Your task to perform on an android device: add a label to a message in the gmail app Image 0: 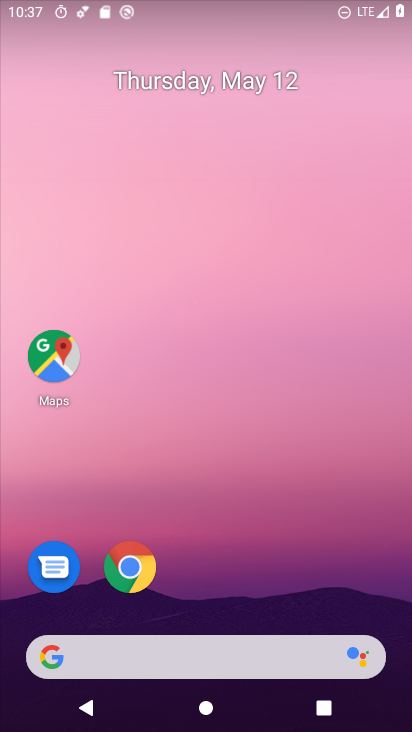
Step 0: drag from (276, 502) to (299, 135)
Your task to perform on an android device: add a label to a message in the gmail app Image 1: 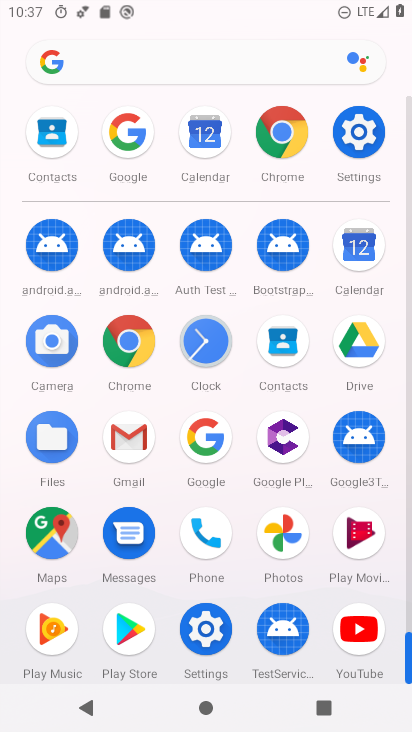
Step 1: click (108, 463)
Your task to perform on an android device: add a label to a message in the gmail app Image 2: 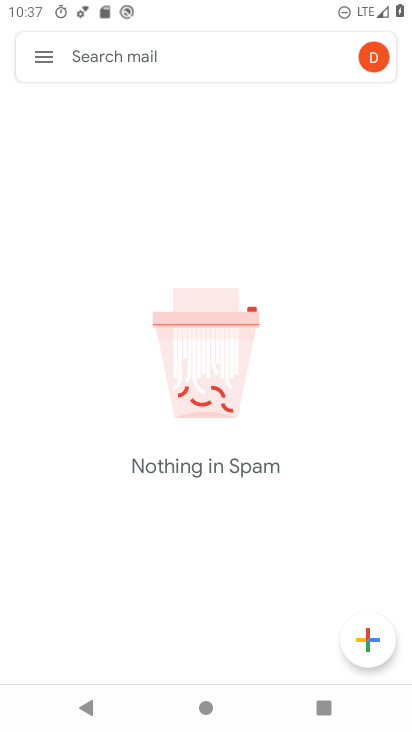
Step 2: click (47, 64)
Your task to perform on an android device: add a label to a message in the gmail app Image 3: 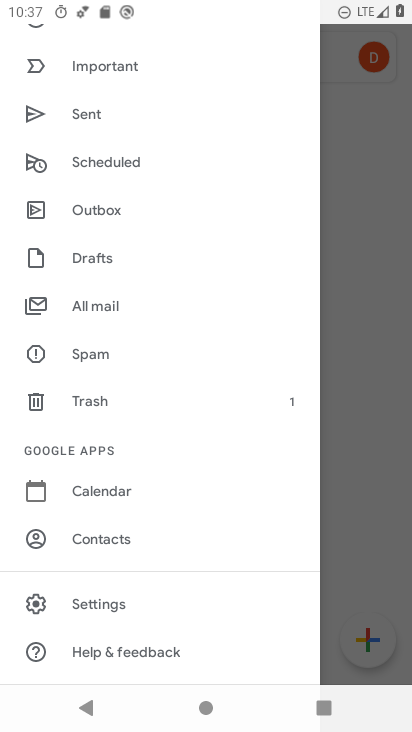
Step 3: click (155, 276)
Your task to perform on an android device: add a label to a message in the gmail app Image 4: 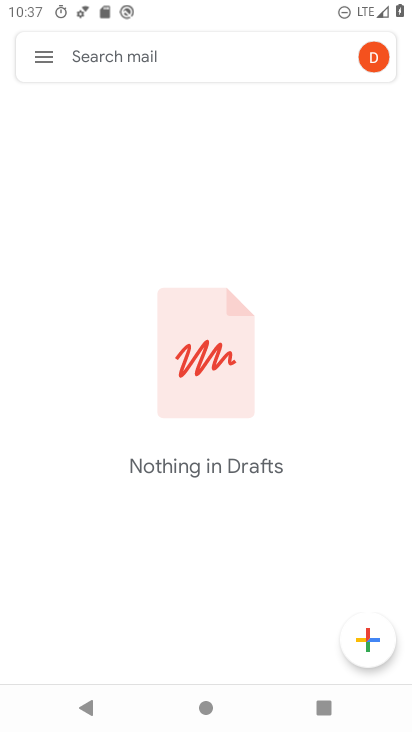
Step 4: task complete